Your task to perform on an android device: What is the recent news? Image 0: 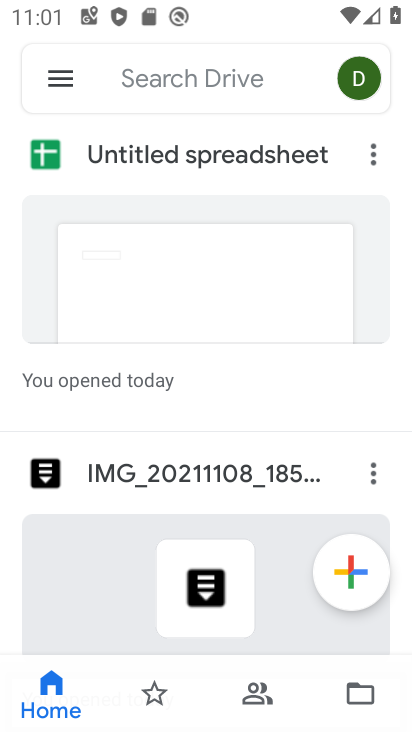
Step 0: press back button
Your task to perform on an android device: What is the recent news? Image 1: 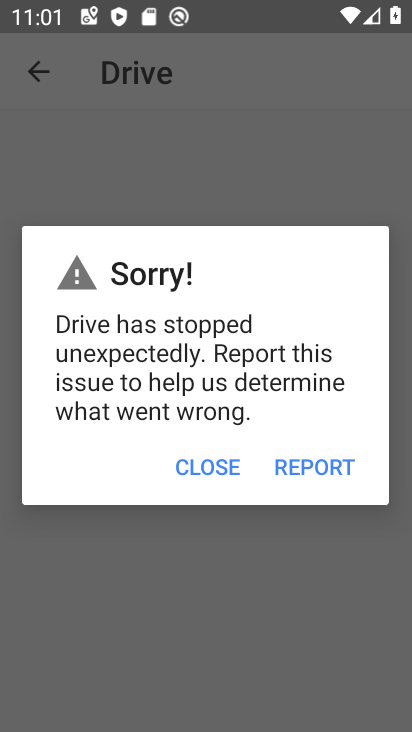
Step 1: press home button
Your task to perform on an android device: What is the recent news? Image 2: 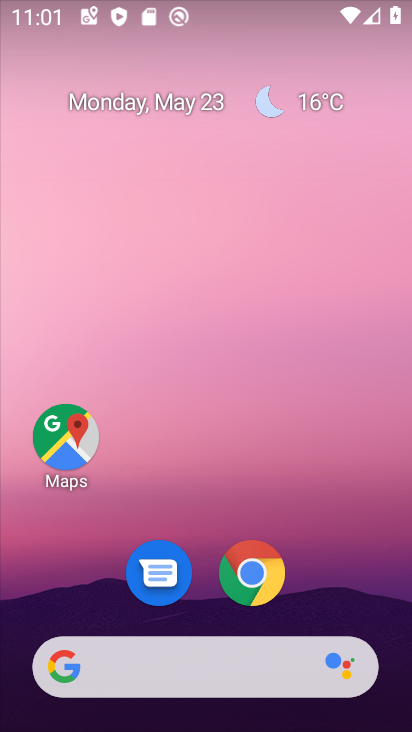
Step 2: drag from (332, 549) to (247, 34)
Your task to perform on an android device: What is the recent news? Image 3: 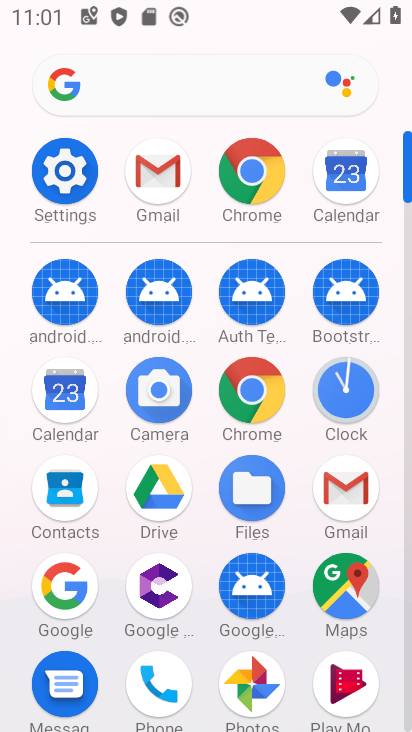
Step 3: click (254, 173)
Your task to perform on an android device: What is the recent news? Image 4: 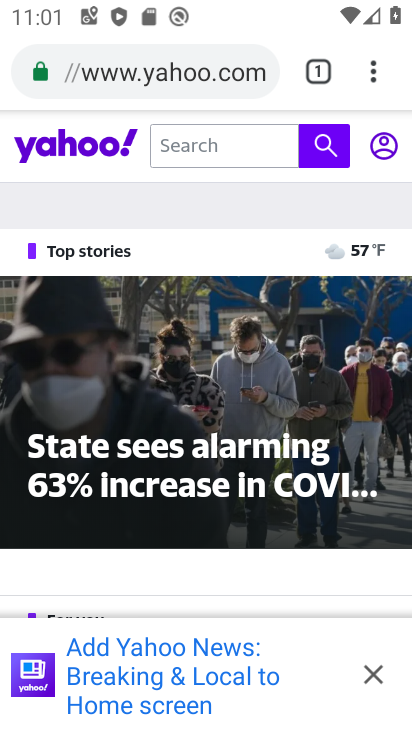
Step 4: click (186, 64)
Your task to perform on an android device: What is the recent news? Image 5: 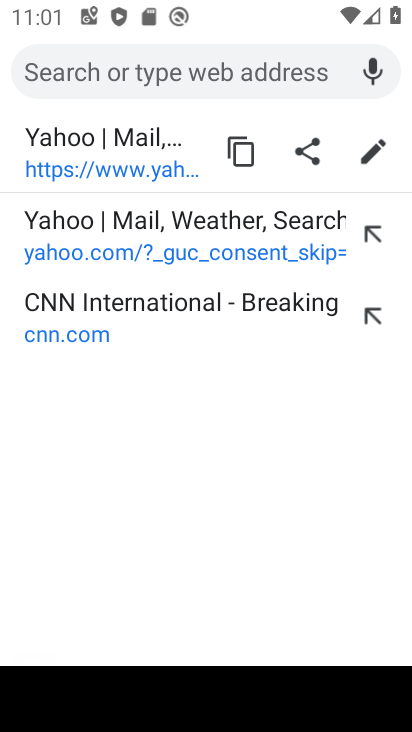
Step 5: type "What is the recent news?"
Your task to perform on an android device: What is the recent news? Image 6: 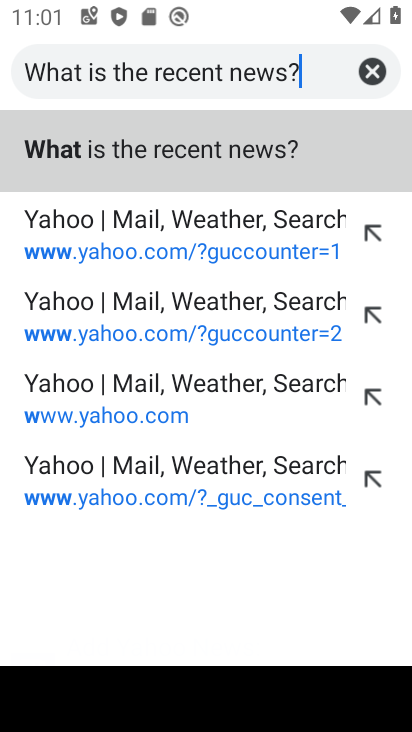
Step 6: type ""
Your task to perform on an android device: What is the recent news? Image 7: 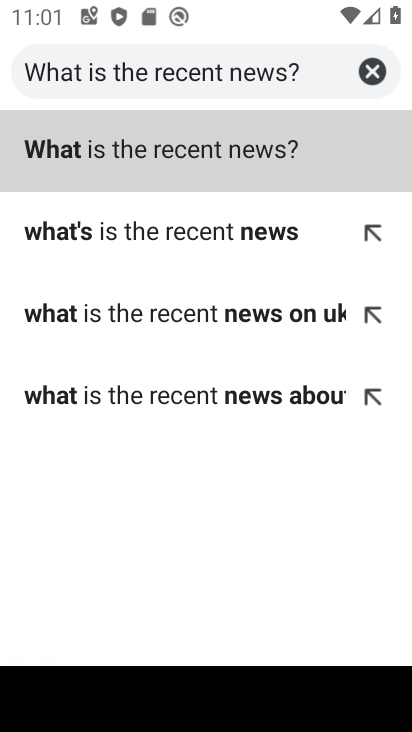
Step 7: click (224, 144)
Your task to perform on an android device: What is the recent news? Image 8: 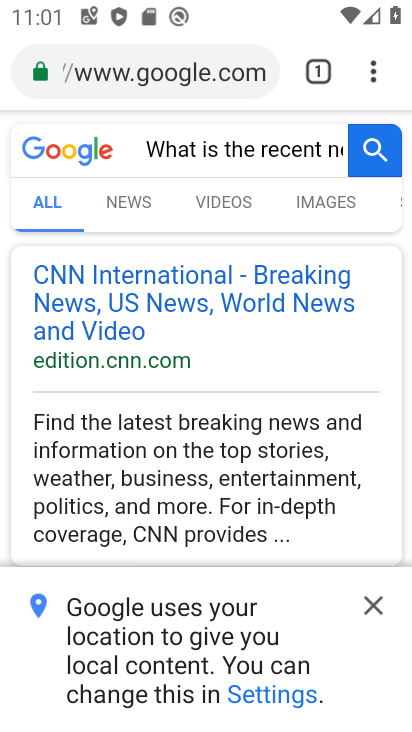
Step 8: click (126, 191)
Your task to perform on an android device: What is the recent news? Image 9: 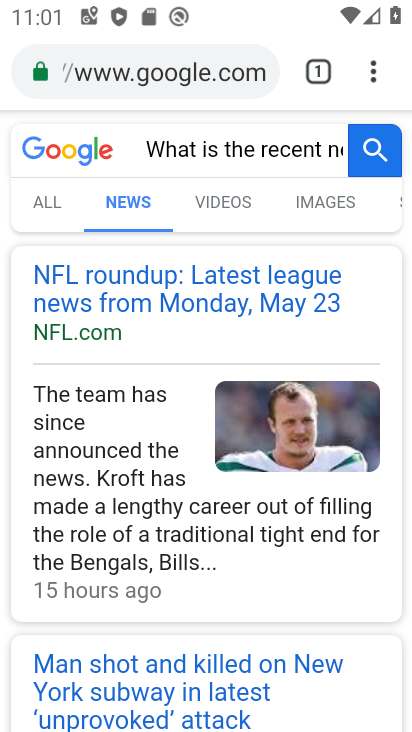
Step 9: task complete